Your task to perform on an android device: toggle notification dots Image 0: 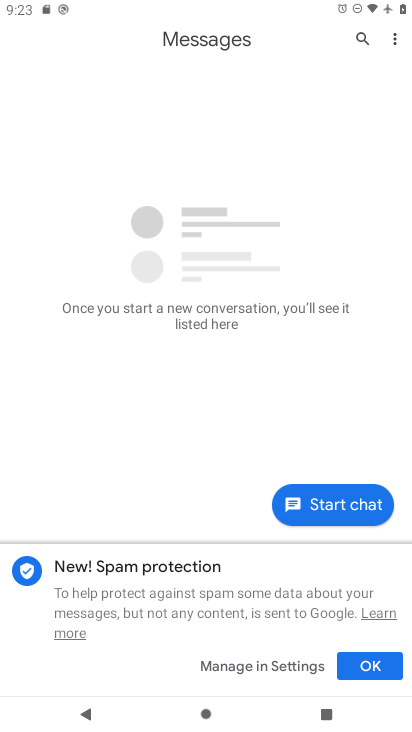
Step 0: press home button
Your task to perform on an android device: toggle notification dots Image 1: 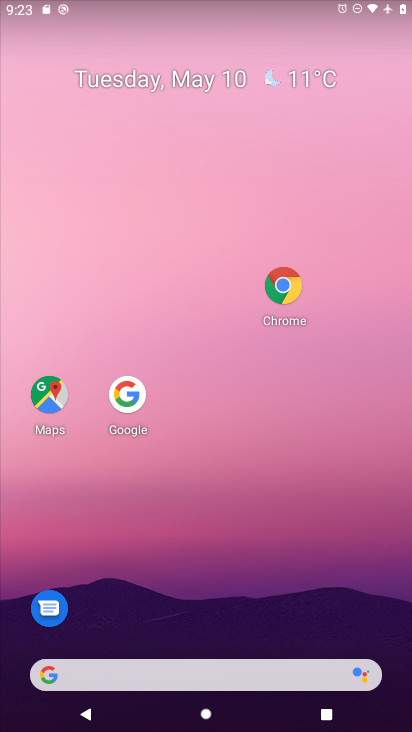
Step 1: drag from (165, 671) to (284, 165)
Your task to perform on an android device: toggle notification dots Image 2: 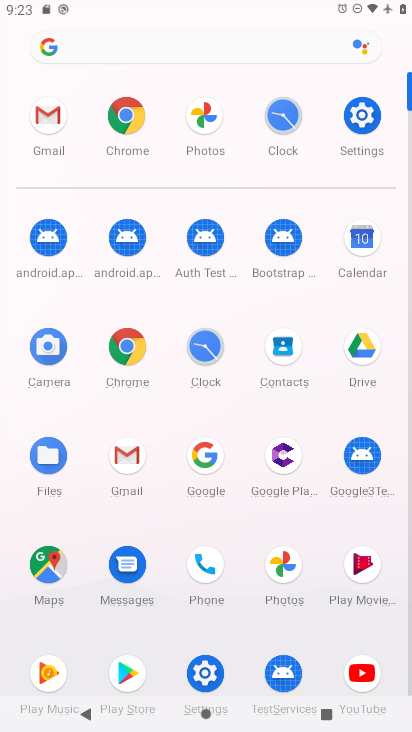
Step 2: click (351, 111)
Your task to perform on an android device: toggle notification dots Image 3: 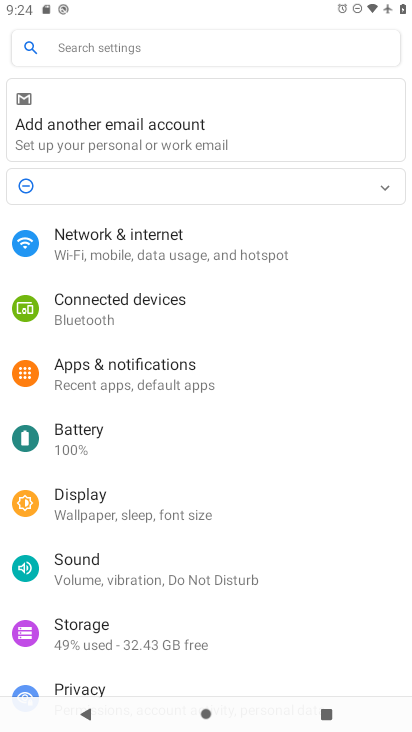
Step 3: click (161, 368)
Your task to perform on an android device: toggle notification dots Image 4: 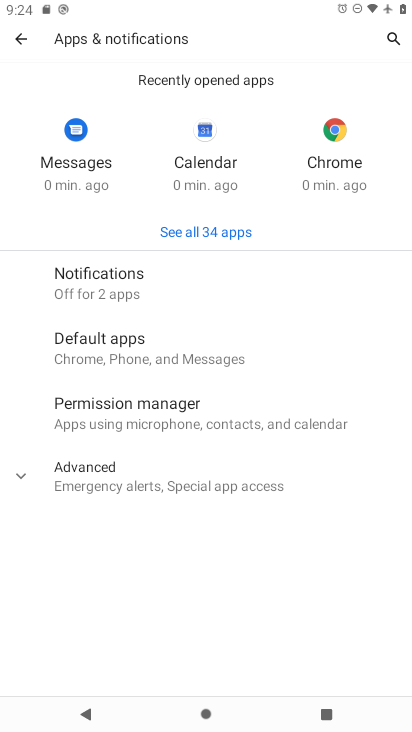
Step 4: click (124, 287)
Your task to perform on an android device: toggle notification dots Image 5: 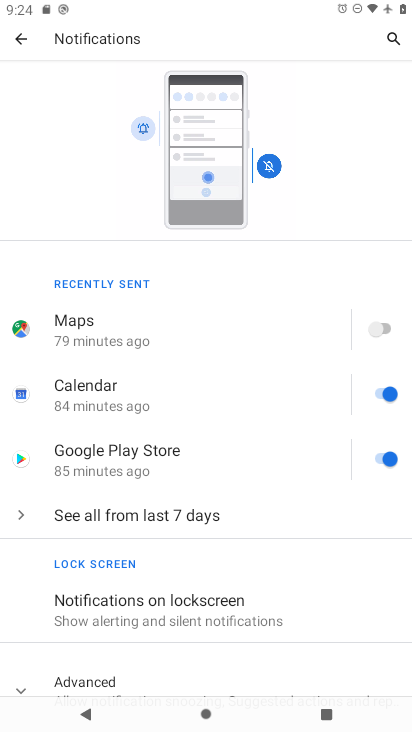
Step 5: drag from (156, 575) to (253, 301)
Your task to perform on an android device: toggle notification dots Image 6: 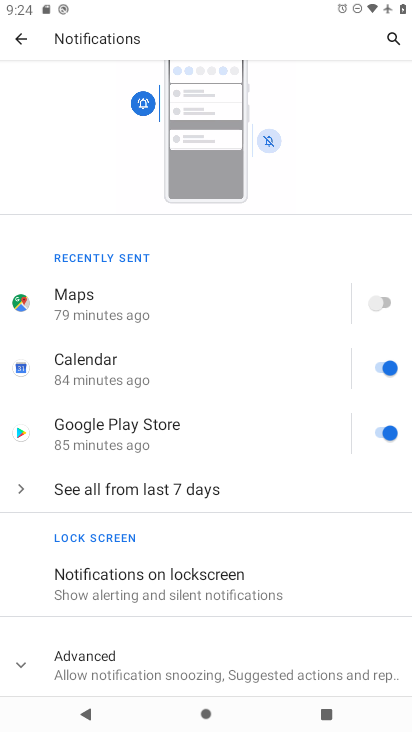
Step 6: click (103, 669)
Your task to perform on an android device: toggle notification dots Image 7: 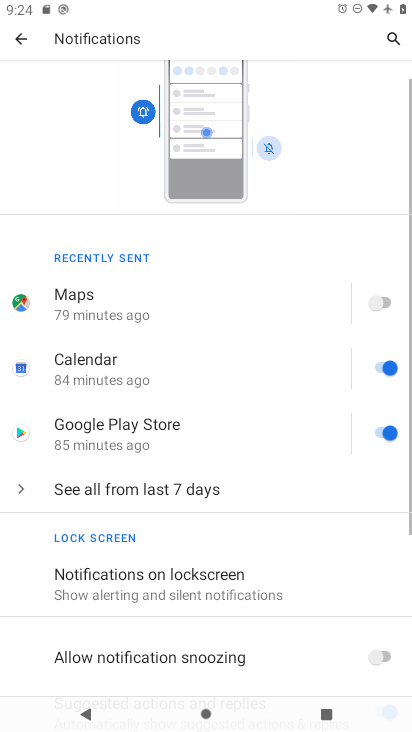
Step 7: drag from (162, 595) to (310, 132)
Your task to perform on an android device: toggle notification dots Image 8: 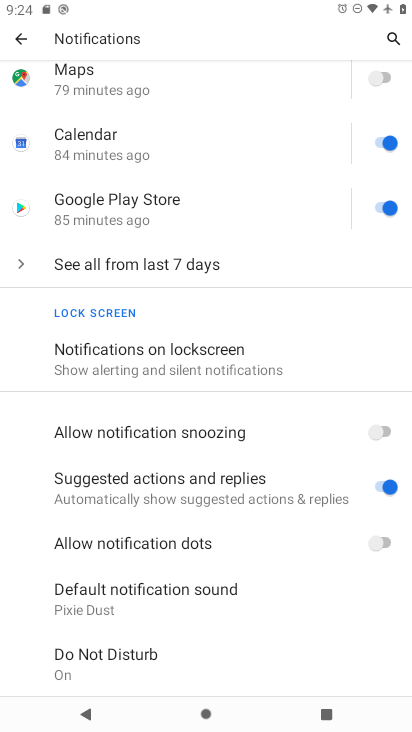
Step 8: click (386, 542)
Your task to perform on an android device: toggle notification dots Image 9: 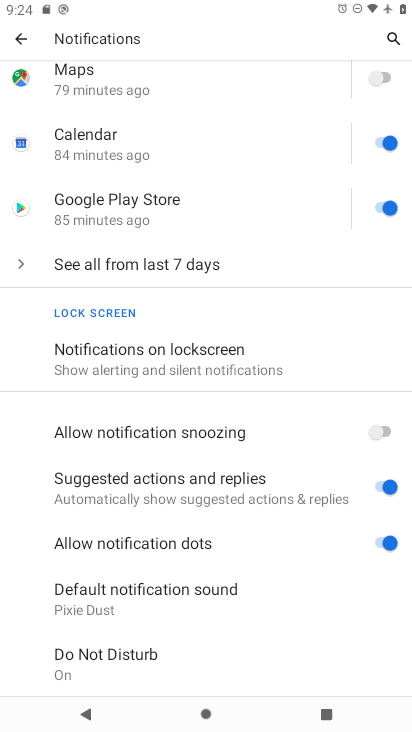
Step 9: task complete